Your task to perform on an android device: Check the weather Image 0: 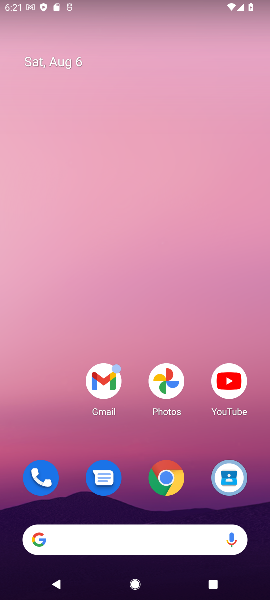
Step 0: click (128, 535)
Your task to perform on an android device: Check the weather Image 1: 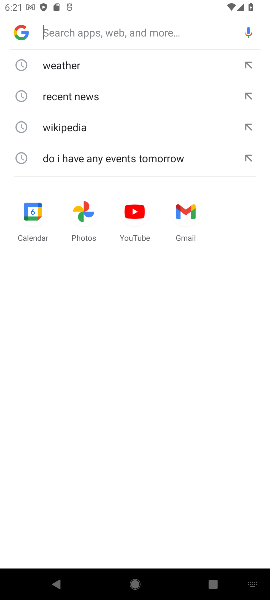
Step 1: click (53, 67)
Your task to perform on an android device: Check the weather Image 2: 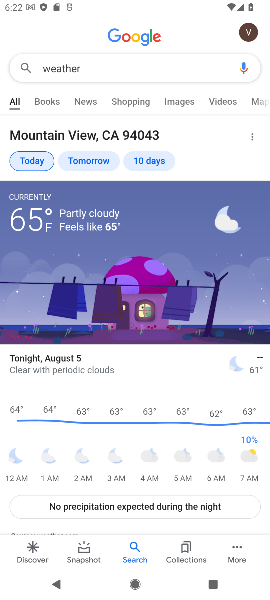
Step 2: task complete